Your task to perform on an android device: turn off javascript in the chrome app Image 0: 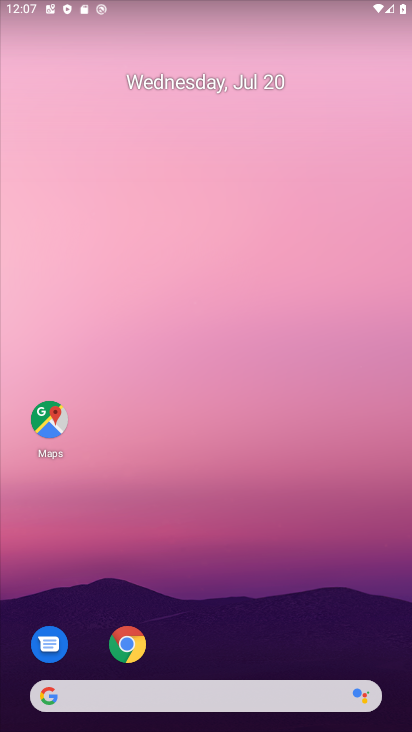
Step 0: press home button
Your task to perform on an android device: turn off javascript in the chrome app Image 1: 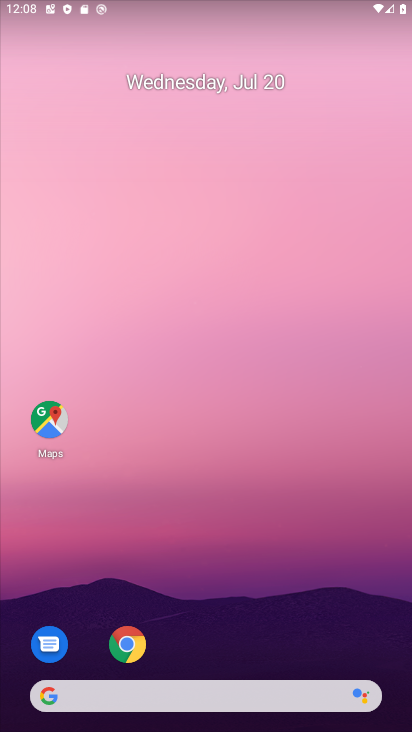
Step 1: drag from (354, 621) to (403, 72)
Your task to perform on an android device: turn off javascript in the chrome app Image 2: 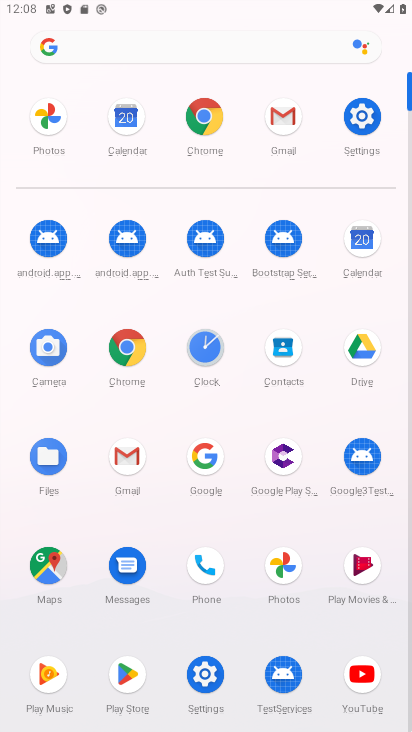
Step 2: click (114, 333)
Your task to perform on an android device: turn off javascript in the chrome app Image 3: 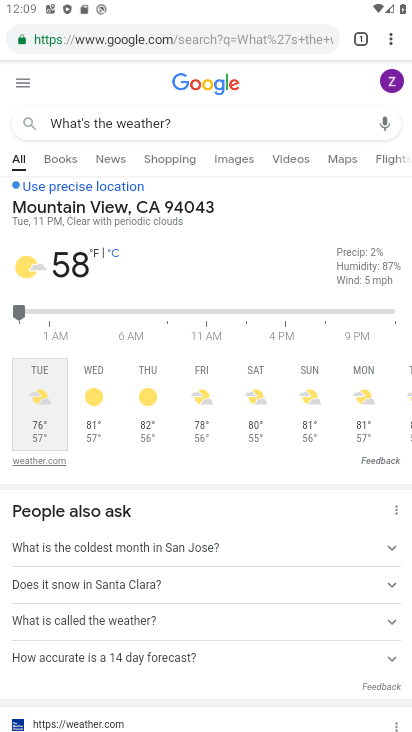
Step 3: drag from (383, 39) to (265, 431)
Your task to perform on an android device: turn off javascript in the chrome app Image 4: 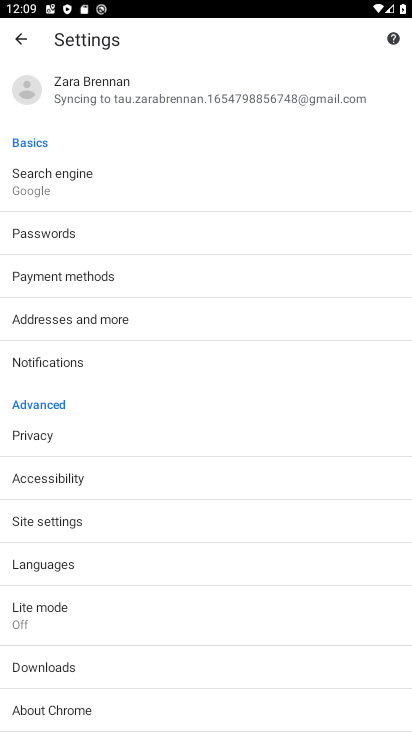
Step 4: click (51, 526)
Your task to perform on an android device: turn off javascript in the chrome app Image 5: 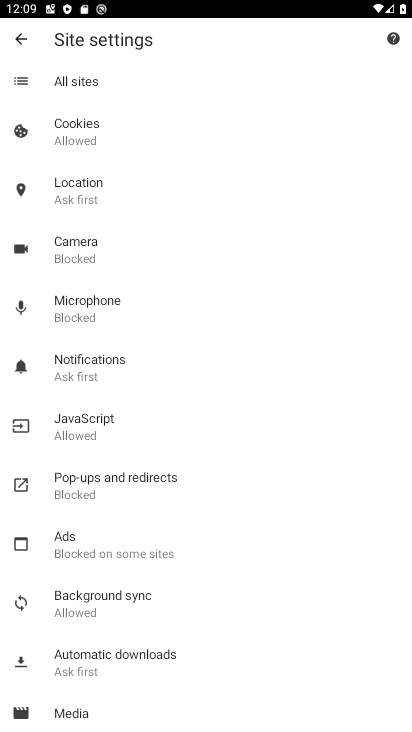
Step 5: drag from (133, 648) to (168, 363)
Your task to perform on an android device: turn off javascript in the chrome app Image 6: 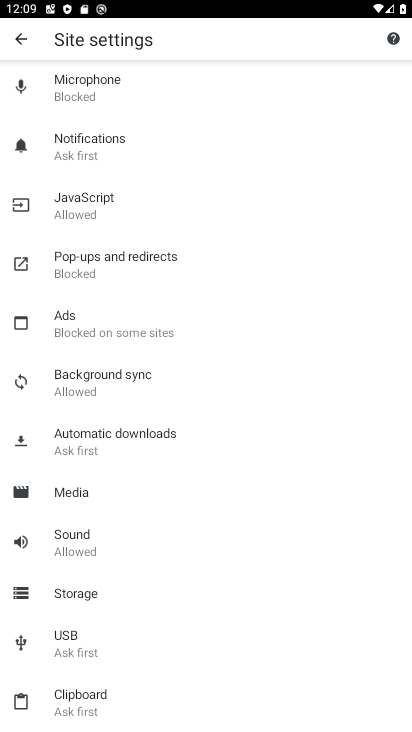
Step 6: drag from (121, 284) to (135, 638)
Your task to perform on an android device: turn off javascript in the chrome app Image 7: 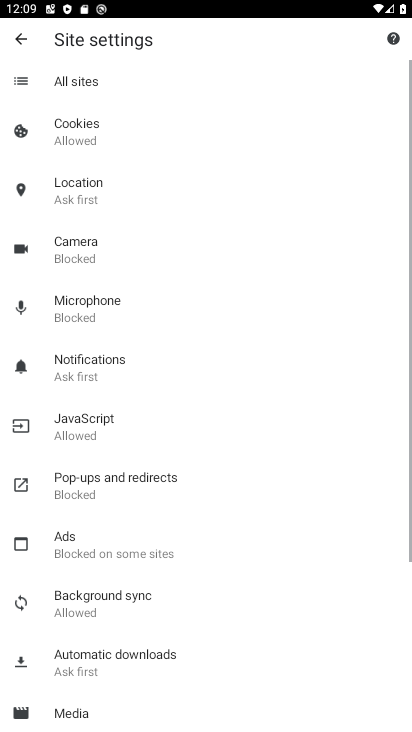
Step 7: click (81, 421)
Your task to perform on an android device: turn off javascript in the chrome app Image 8: 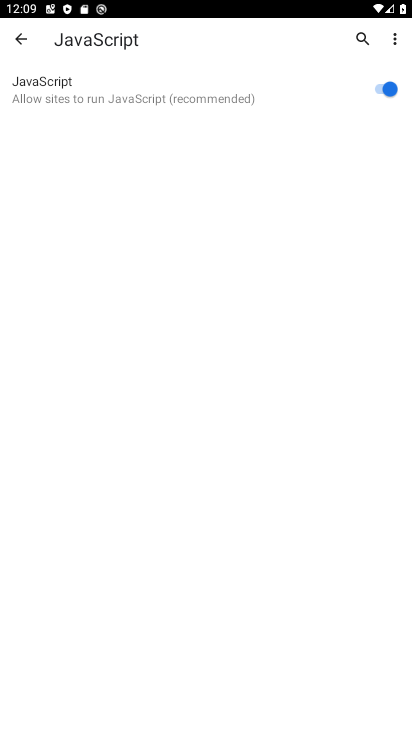
Step 8: click (150, 96)
Your task to perform on an android device: turn off javascript in the chrome app Image 9: 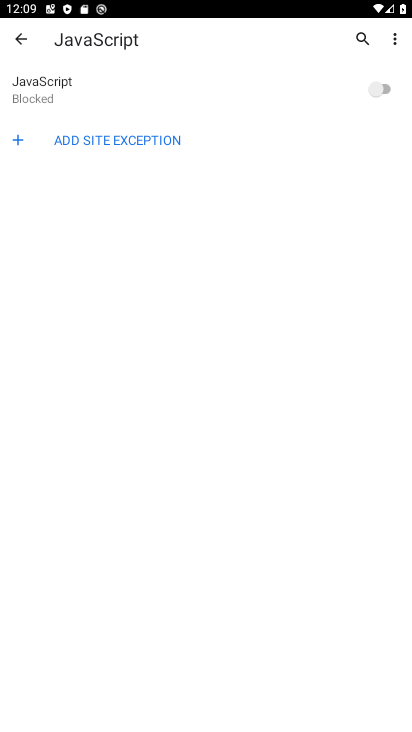
Step 9: task complete